Your task to perform on an android device: set an alarm Image 0: 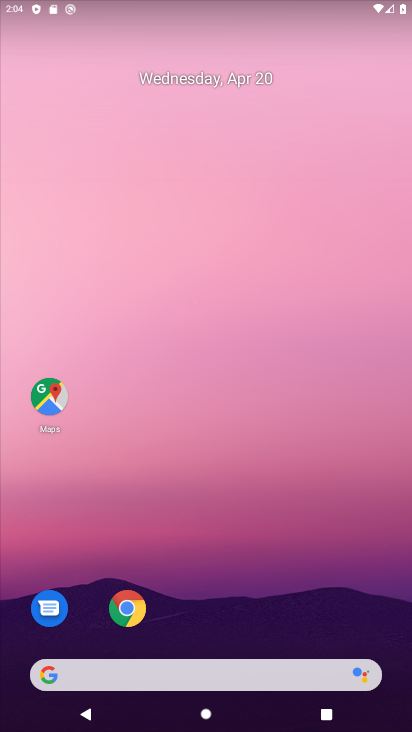
Step 0: drag from (225, 610) to (152, 92)
Your task to perform on an android device: set an alarm Image 1: 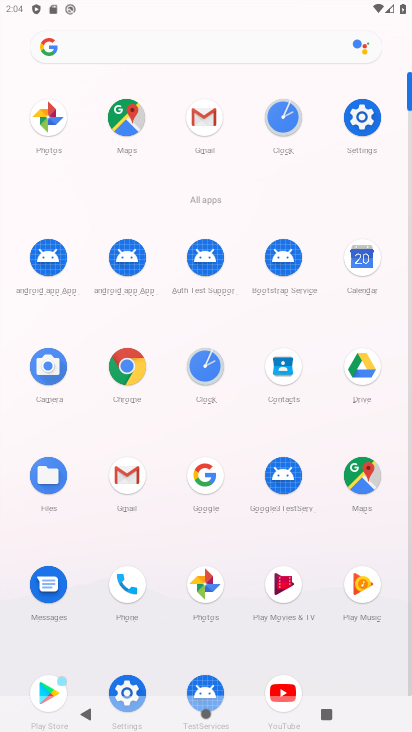
Step 1: click (190, 365)
Your task to perform on an android device: set an alarm Image 2: 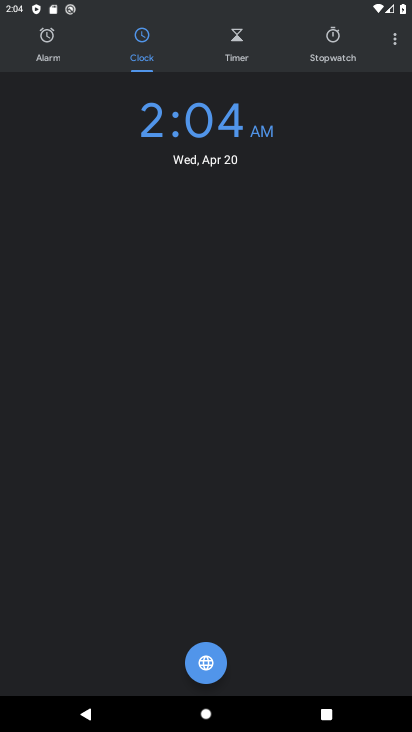
Step 2: click (49, 60)
Your task to perform on an android device: set an alarm Image 3: 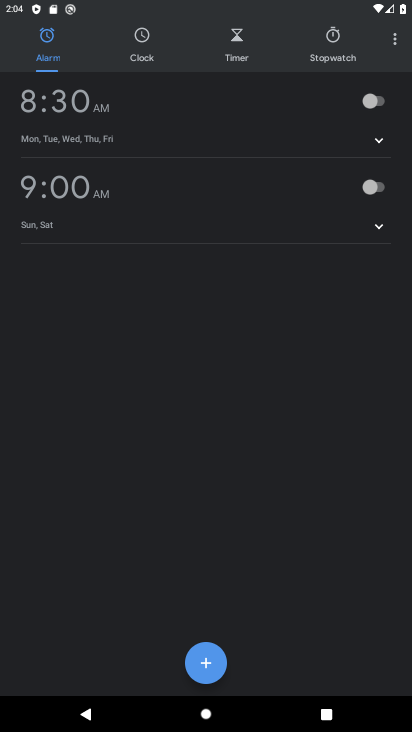
Step 3: click (197, 662)
Your task to perform on an android device: set an alarm Image 4: 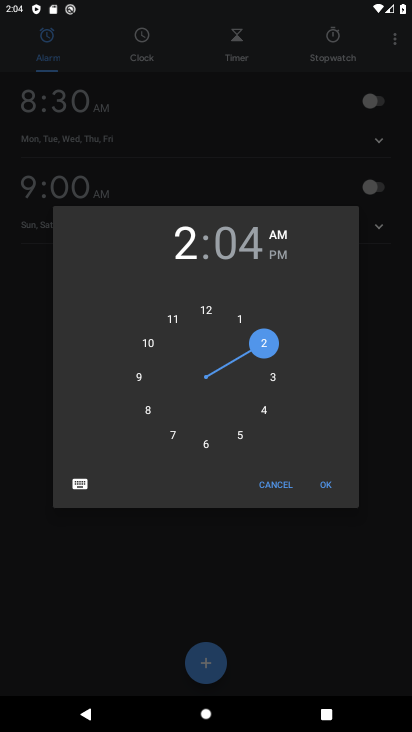
Step 4: click (319, 488)
Your task to perform on an android device: set an alarm Image 5: 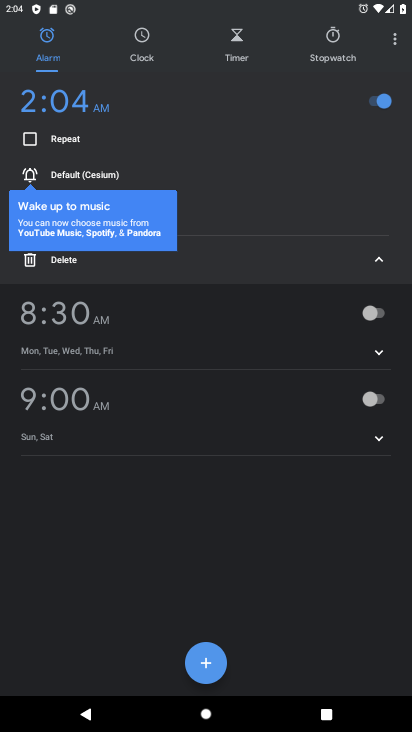
Step 5: click (376, 266)
Your task to perform on an android device: set an alarm Image 6: 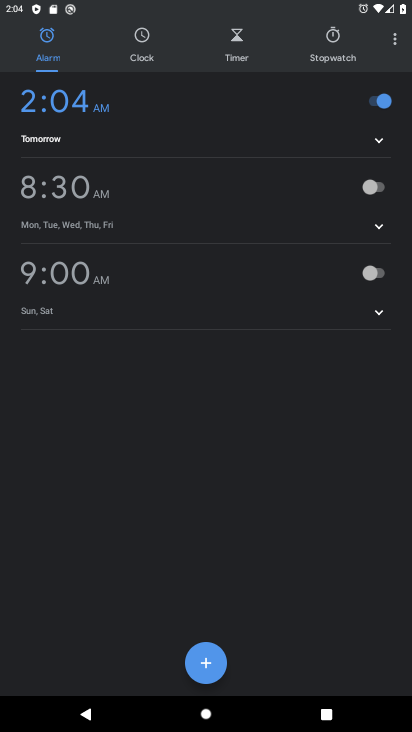
Step 6: task complete